Your task to perform on an android device: change the clock display to analog Image 0: 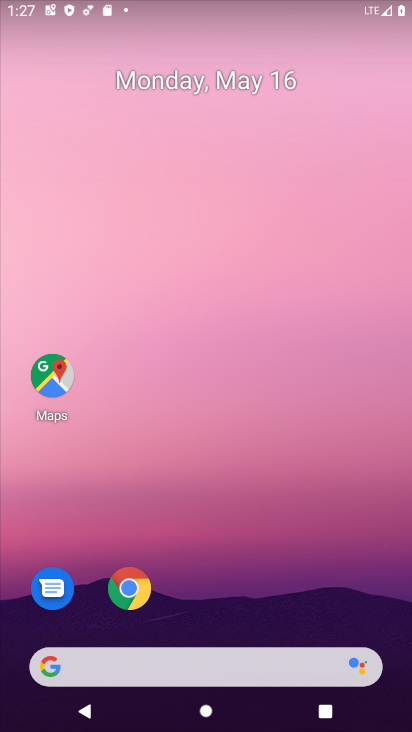
Step 0: drag from (290, 591) to (237, 94)
Your task to perform on an android device: change the clock display to analog Image 1: 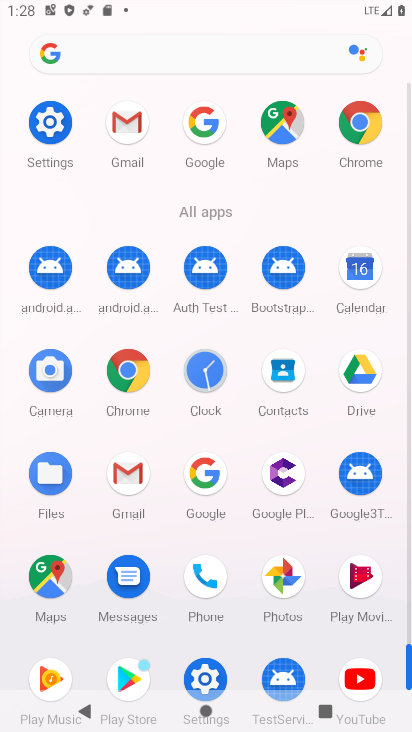
Step 1: click (203, 368)
Your task to perform on an android device: change the clock display to analog Image 2: 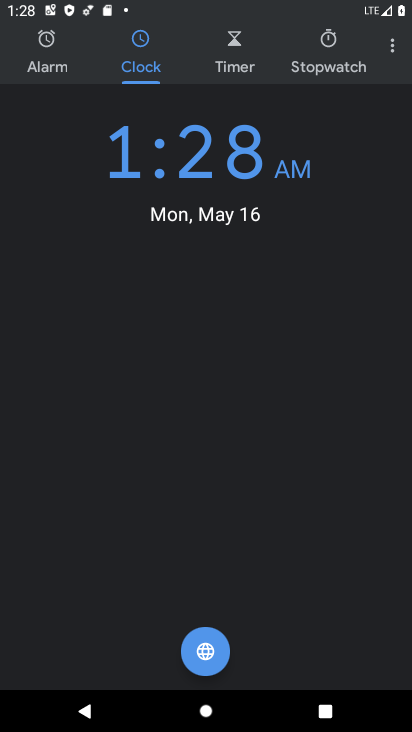
Step 2: click (395, 45)
Your task to perform on an android device: change the clock display to analog Image 3: 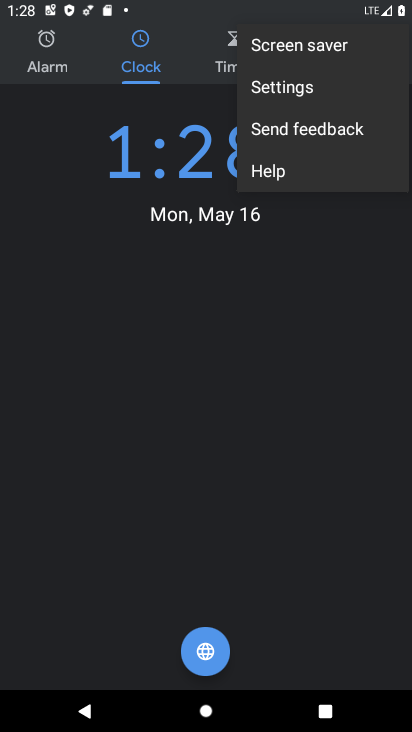
Step 3: click (298, 88)
Your task to perform on an android device: change the clock display to analog Image 4: 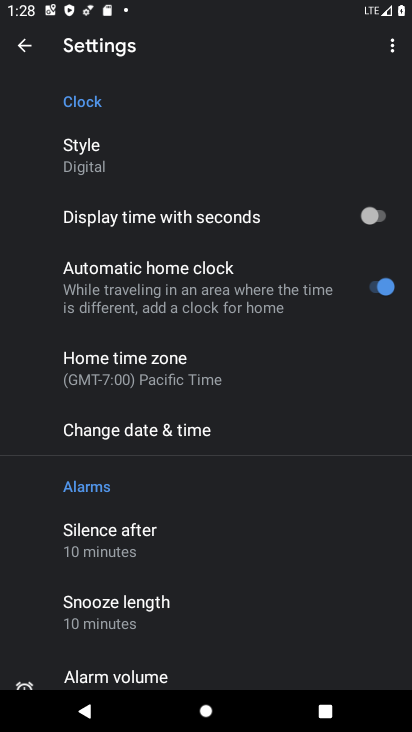
Step 4: drag from (217, 536) to (239, 452)
Your task to perform on an android device: change the clock display to analog Image 5: 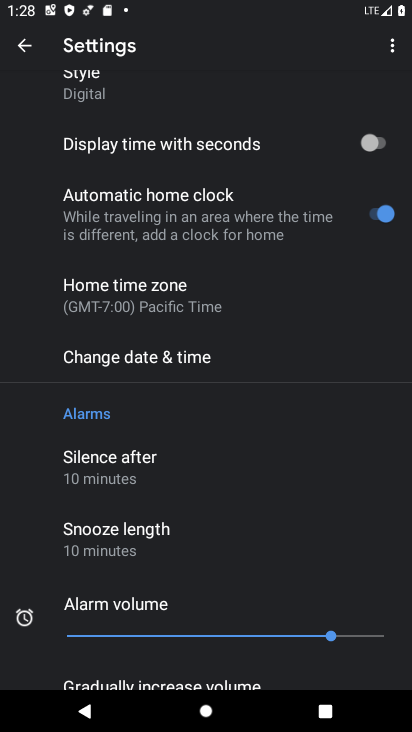
Step 5: click (111, 97)
Your task to perform on an android device: change the clock display to analog Image 6: 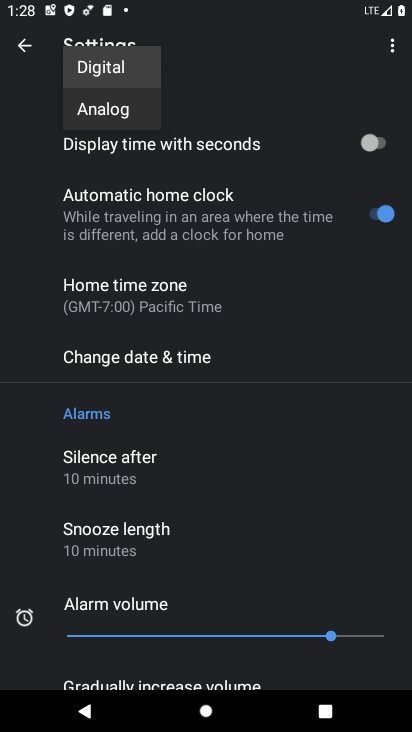
Step 6: click (130, 114)
Your task to perform on an android device: change the clock display to analog Image 7: 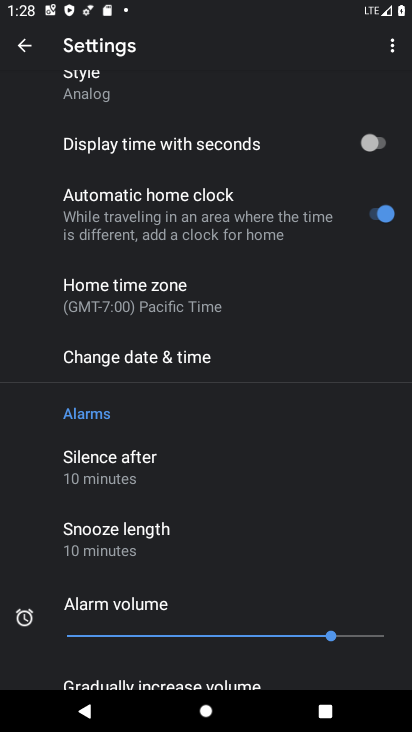
Step 7: task complete